Your task to perform on an android device: Go to settings Image 0: 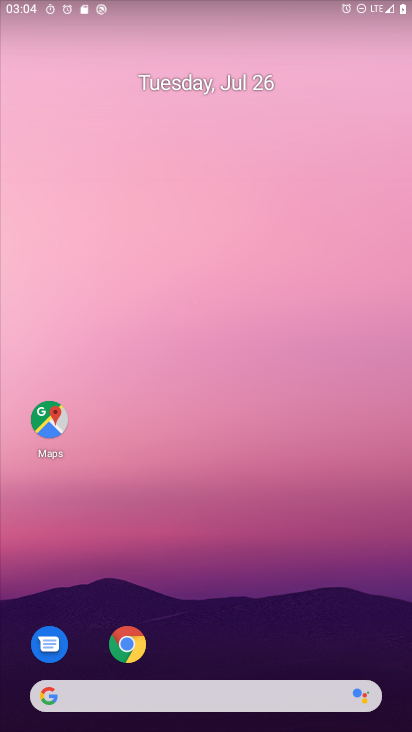
Step 0: drag from (229, 665) to (232, 58)
Your task to perform on an android device: Go to settings Image 1: 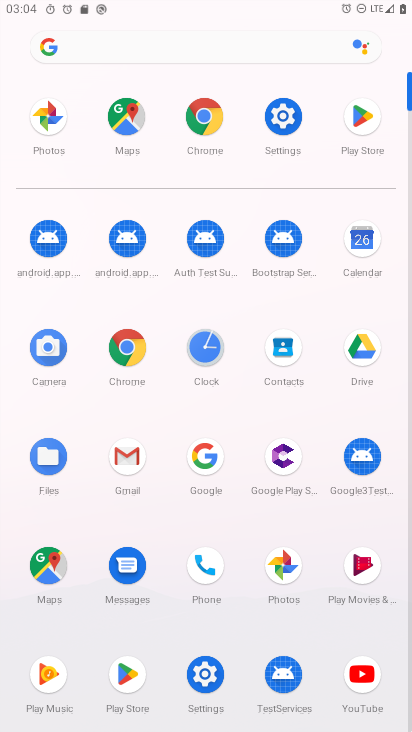
Step 1: click (282, 127)
Your task to perform on an android device: Go to settings Image 2: 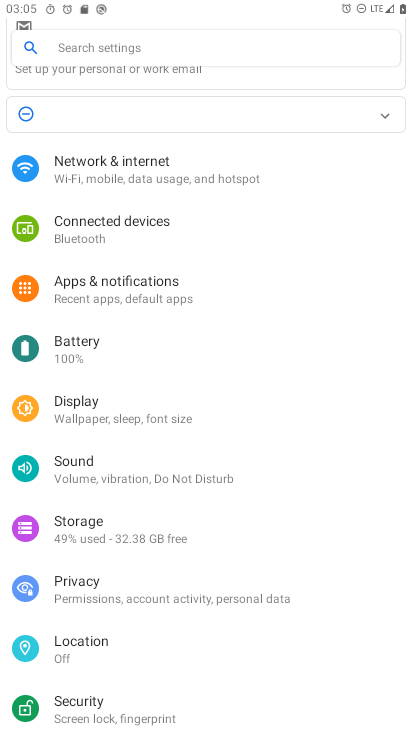
Step 2: task complete